Your task to perform on an android device: Open my contact list Image 0: 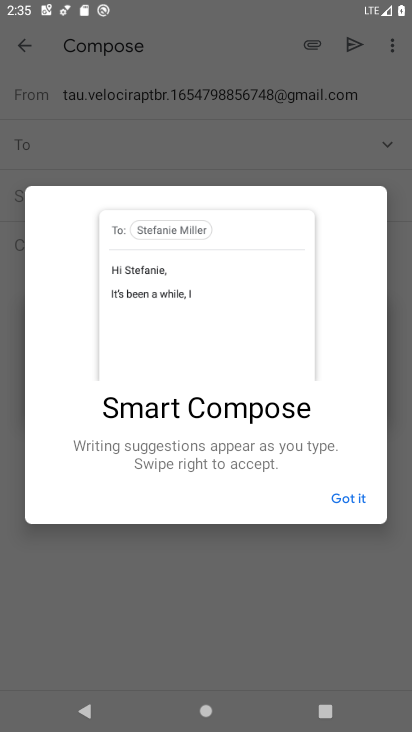
Step 0: press home button
Your task to perform on an android device: Open my contact list Image 1: 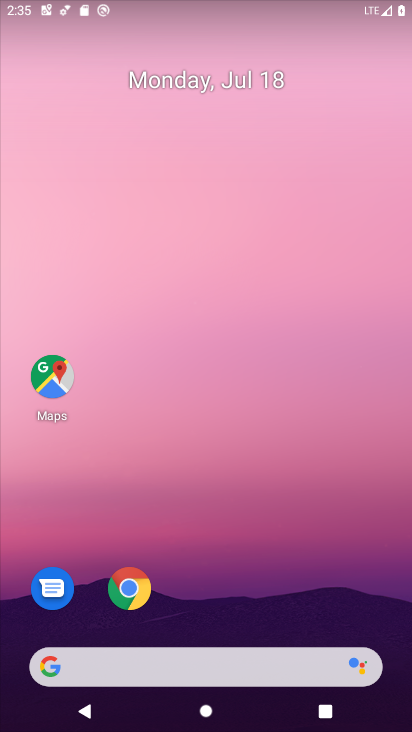
Step 1: drag from (377, 608) to (247, 117)
Your task to perform on an android device: Open my contact list Image 2: 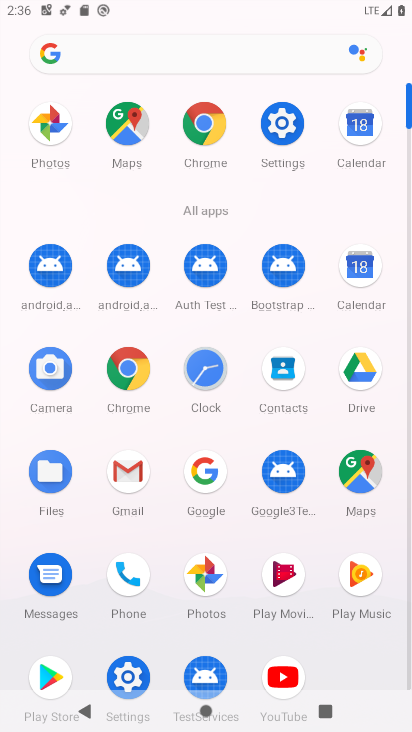
Step 2: click (281, 366)
Your task to perform on an android device: Open my contact list Image 3: 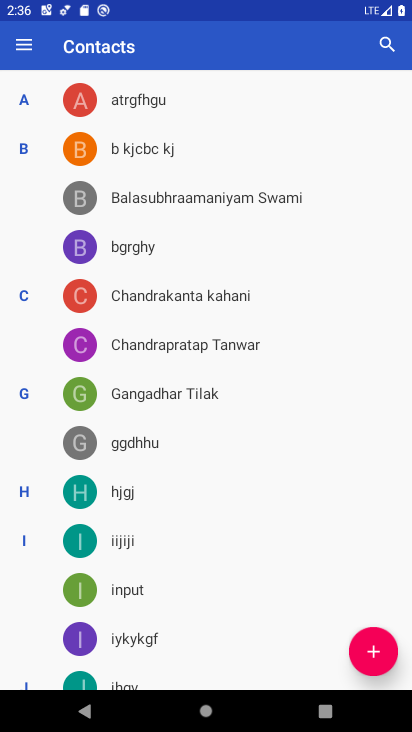
Step 3: task complete